Your task to perform on an android device: turn on javascript in the chrome app Image 0: 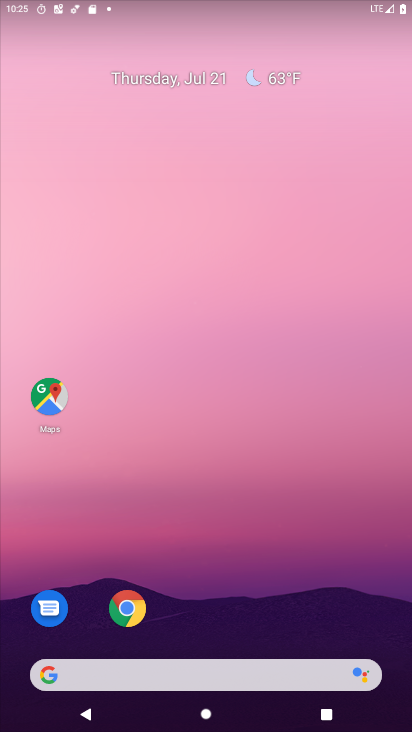
Step 0: drag from (216, 672) to (381, 66)
Your task to perform on an android device: turn on javascript in the chrome app Image 1: 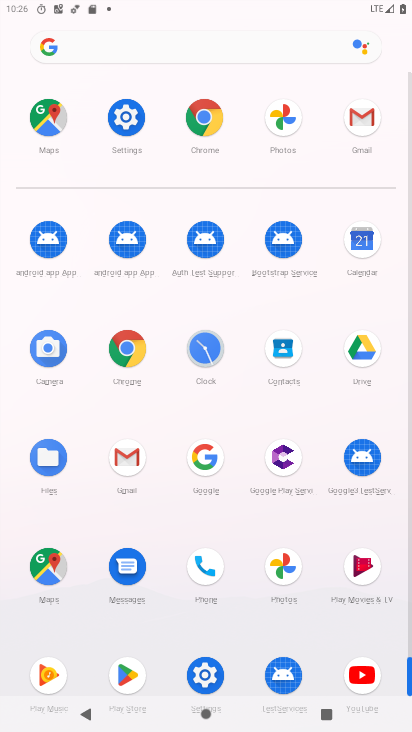
Step 1: click (202, 140)
Your task to perform on an android device: turn on javascript in the chrome app Image 2: 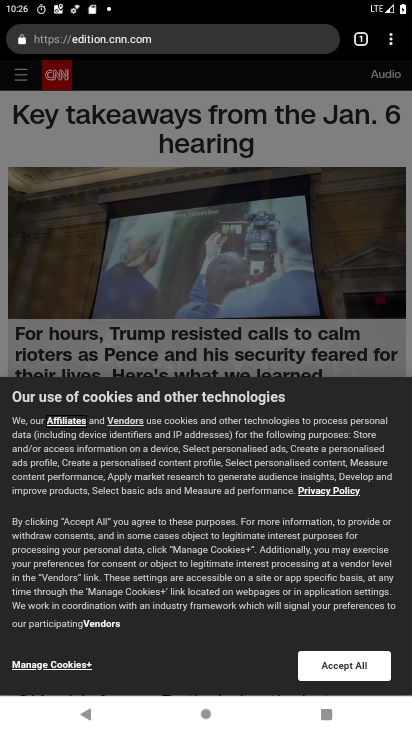
Step 2: click (392, 45)
Your task to perform on an android device: turn on javascript in the chrome app Image 3: 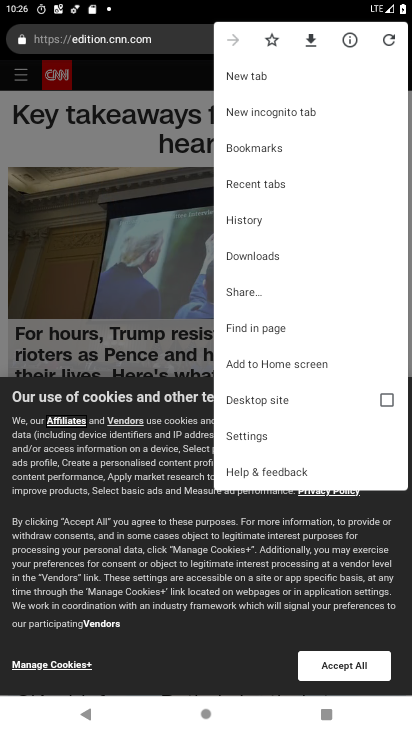
Step 3: click (267, 439)
Your task to perform on an android device: turn on javascript in the chrome app Image 4: 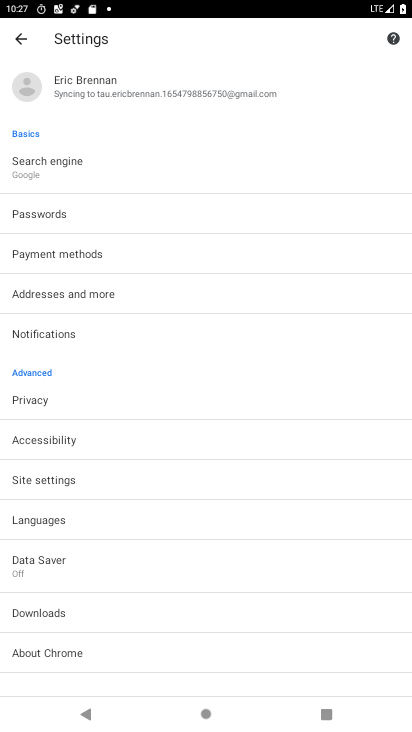
Step 4: click (70, 485)
Your task to perform on an android device: turn on javascript in the chrome app Image 5: 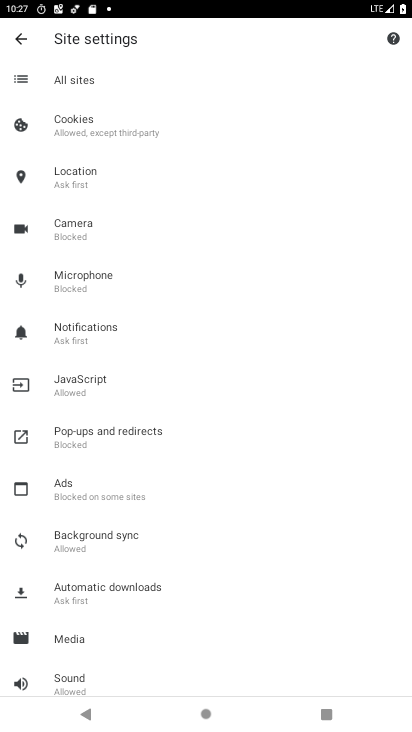
Step 5: click (93, 375)
Your task to perform on an android device: turn on javascript in the chrome app Image 6: 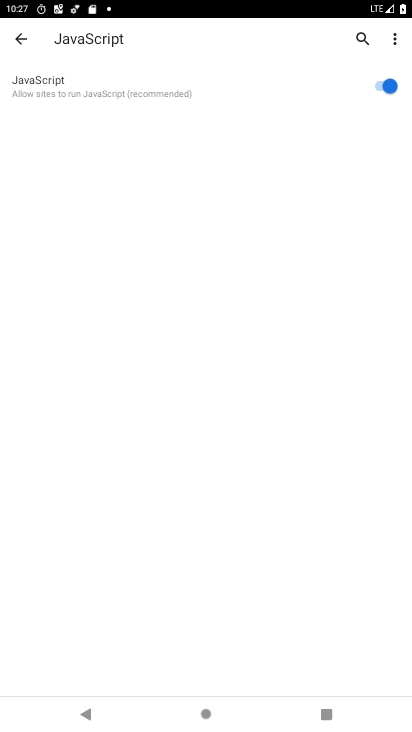
Step 6: task complete